Your task to perform on an android device: Turn on the flashlight Image 0: 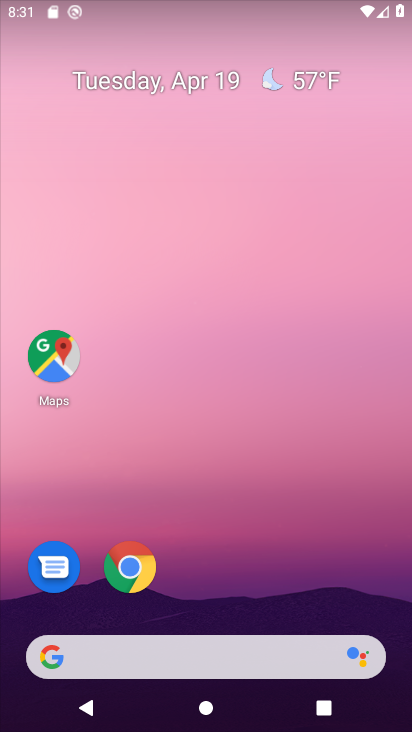
Step 0: click (131, 571)
Your task to perform on an android device: Turn on the flashlight Image 1: 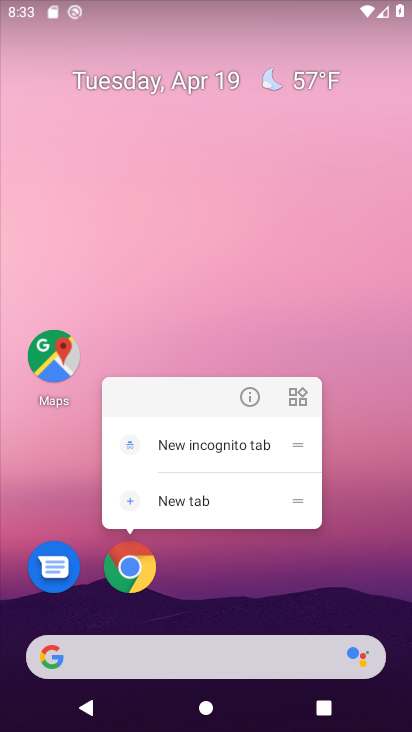
Step 1: task complete